Your task to perform on an android device: Go to battery settings Image 0: 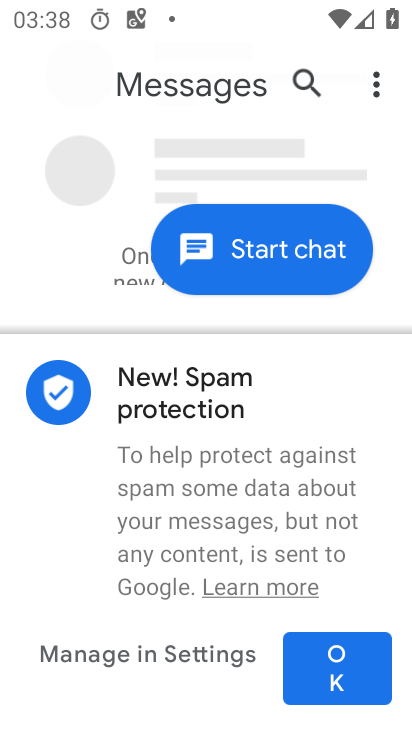
Step 0: press home button
Your task to perform on an android device: Go to battery settings Image 1: 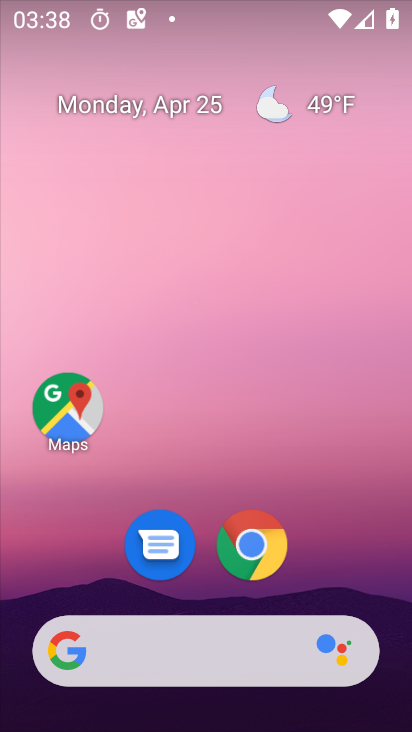
Step 1: drag from (338, 520) to (344, 116)
Your task to perform on an android device: Go to battery settings Image 2: 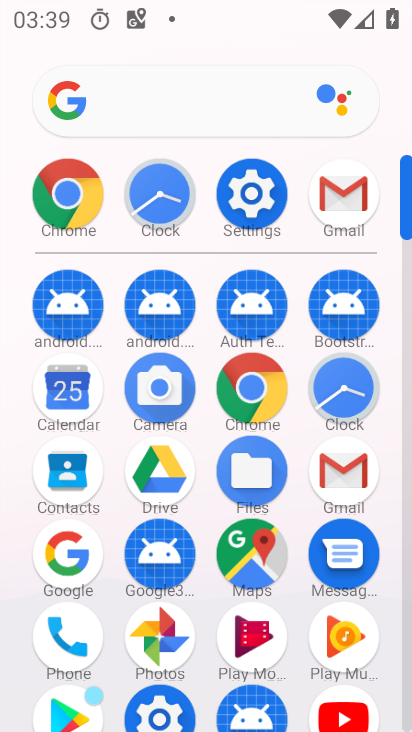
Step 2: click (252, 191)
Your task to perform on an android device: Go to battery settings Image 3: 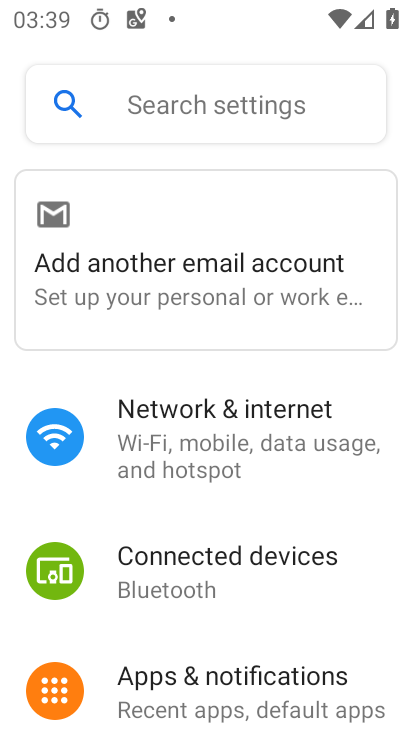
Step 3: drag from (208, 515) to (235, 218)
Your task to perform on an android device: Go to battery settings Image 4: 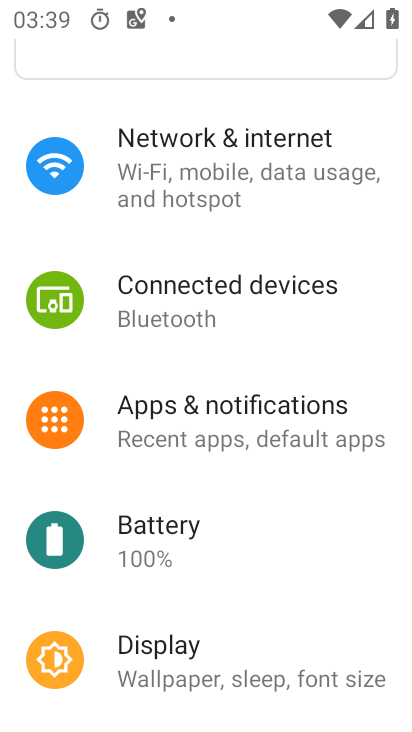
Step 4: click (168, 546)
Your task to perform on an android device: Go to battery settings Image 5: 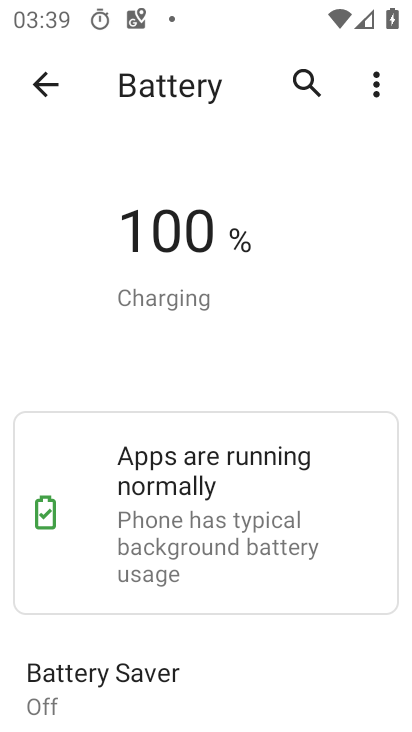
Step 5: task complete